Your task to perform on an android device: set the timer Image 0: 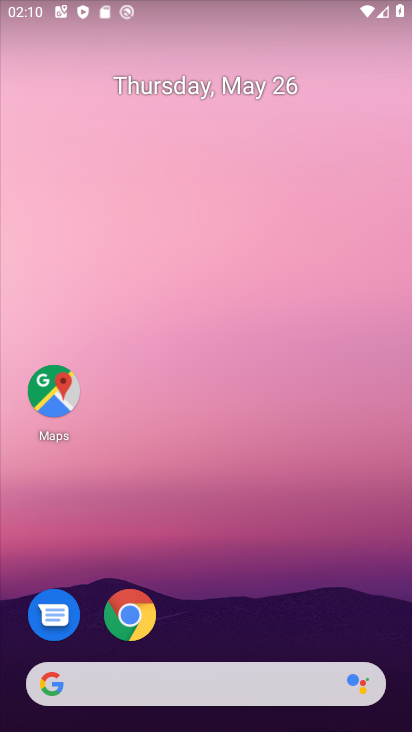
Step 0: press home button
Your task to perform on an android device: set the timer Image 1: 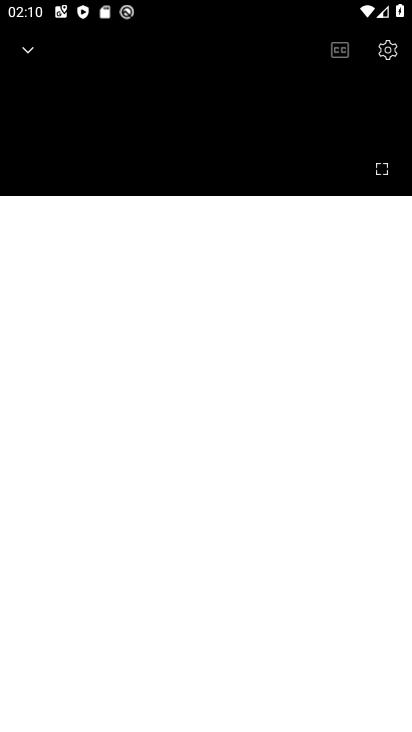
Step 1: click (407, 283)
Your task to perform on an android device: set the timer Image 2: 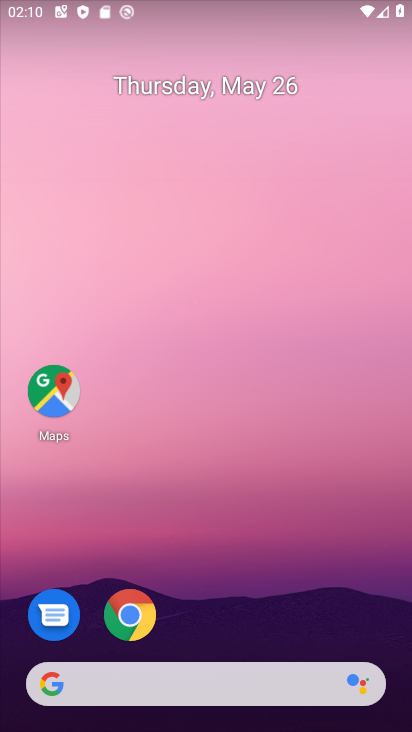
Step 2: drag from (217, 644) to (247, 10)
Your task to perform on an android device: set the timer Image 3: 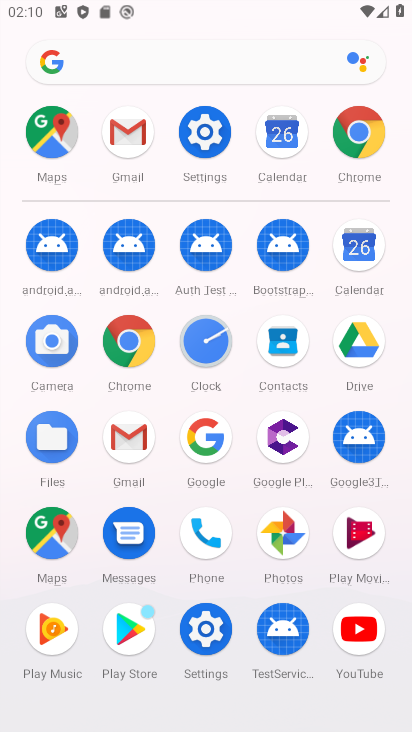
Step 3: click (205, 332)
Your task to perform on an android device: set the timer Image 4: 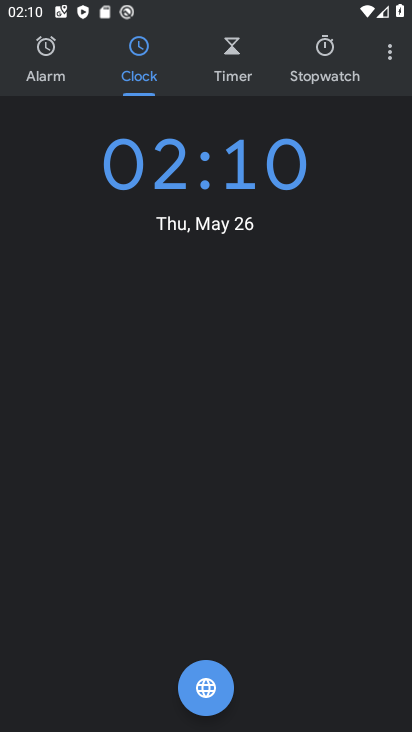
Step 4: click (233, 47)
Your task to perform on an android device: set the timer Image 5: 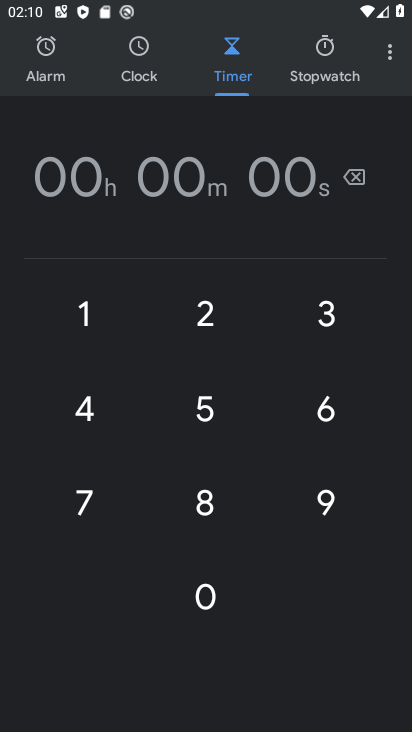
Step 5: click (196, 314)
Your task to perform on an android device: set the timer Image 6: 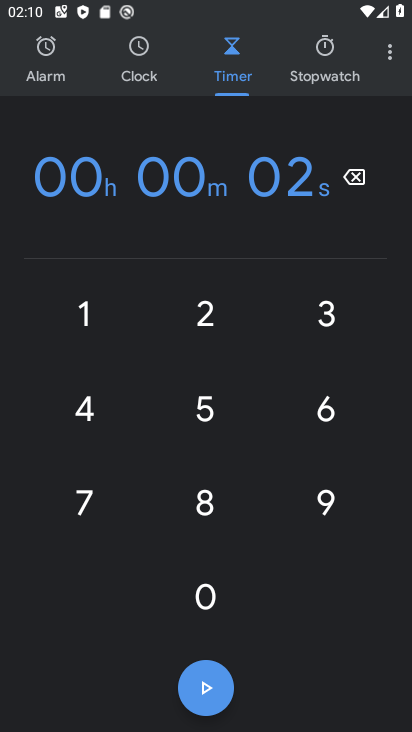
Step 6: click (206, 594)
Your task to perform on an android device: set the timer Image 7: 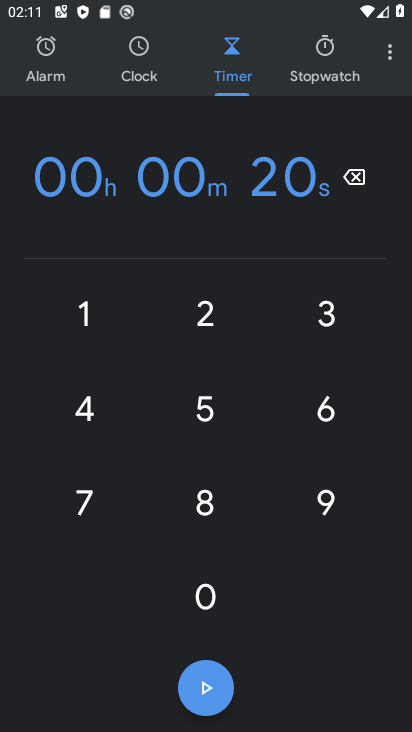
Step 7: click (216, 600)
Your task to perform on an android device: set the timer Image 8: 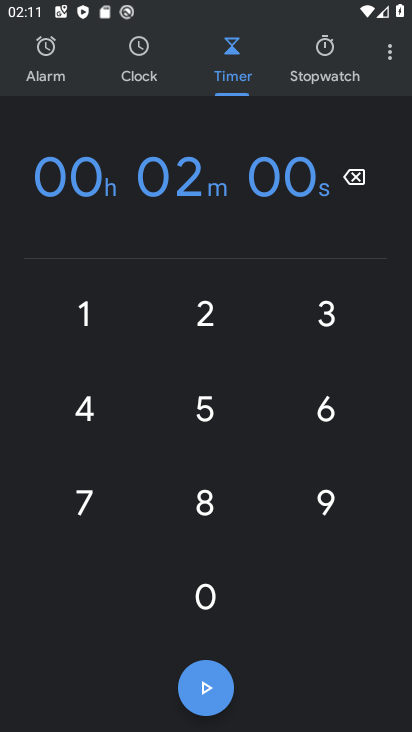
Step 8: click (212, 597)
Your task to perform on an android device: set the timer Image 9: 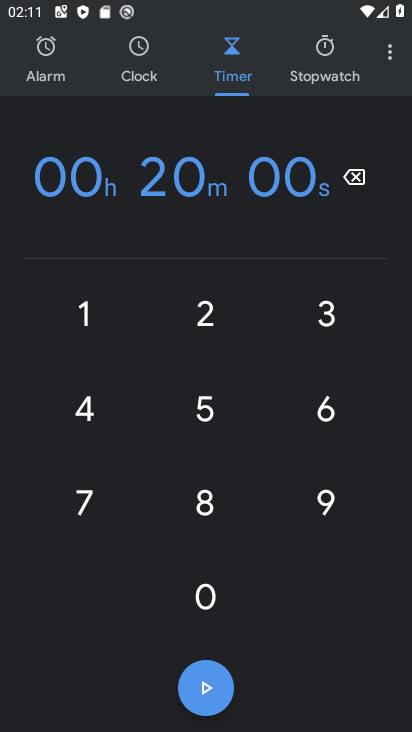
Step 9: click (200, 681)
Your task to perform on an android device: set the timer Image 10: 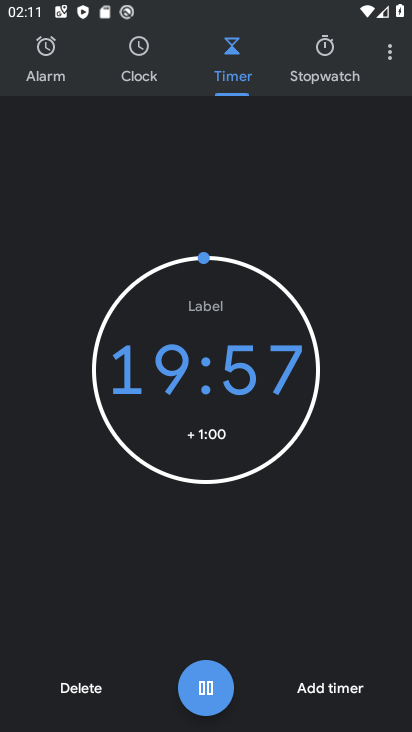
Step 10: task complete